Your task to perform on an android device: turn on translation in the chrome app Image 0: 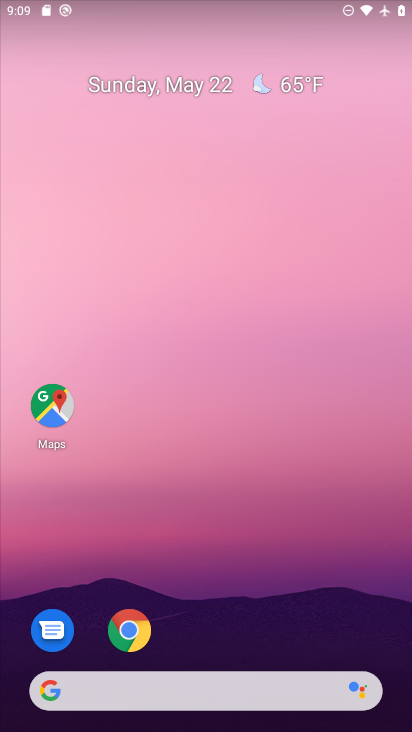
Step 0: press home button
Your task to perform on an android device: turn on translation in the chrome app Image 1: 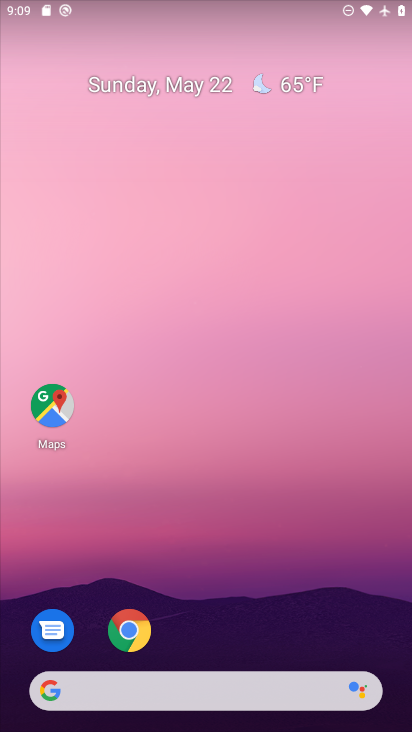
Step 1: click (131, 635)
Your task to perform on an android device: turn on translation in the chrome app Image 2: 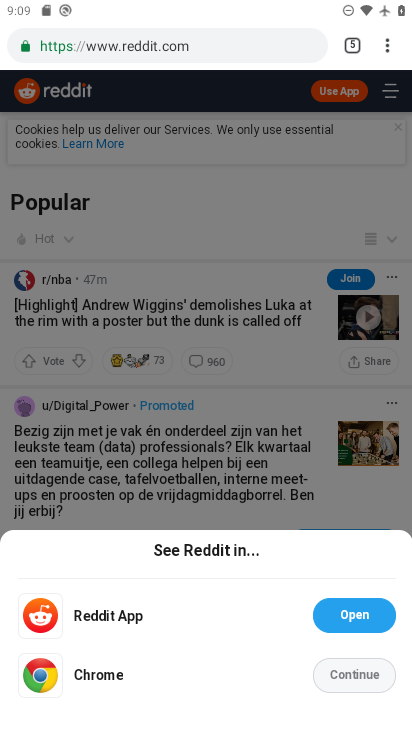
Step 2: drag from (386, 53) to (244, 544)
Your task to perform on an android device: turn on translation in the chrome app Image 3: 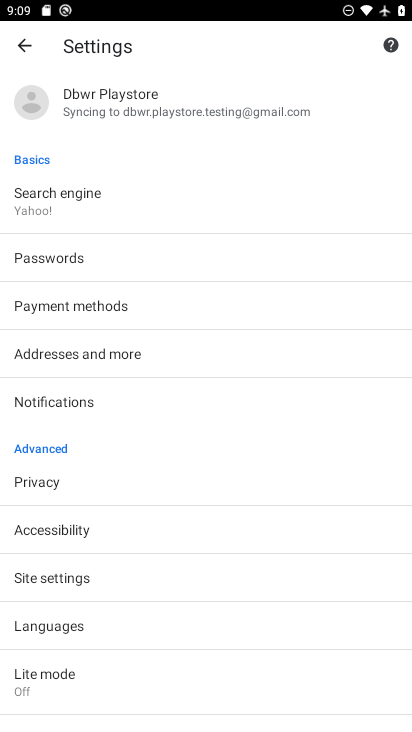
Step 3: click (91, 633)
Your task to perform on an android device: turn on translation in the chrome app Image 4: 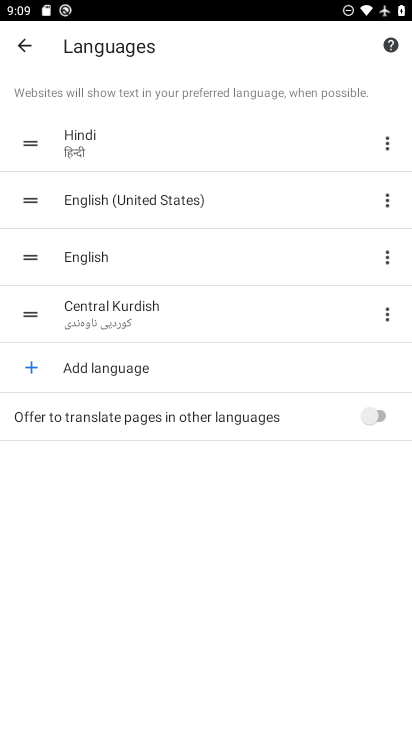
Step 4: click (383, 413)
Your task to perform on an android device: turn on translation in the chrome app Image 5: 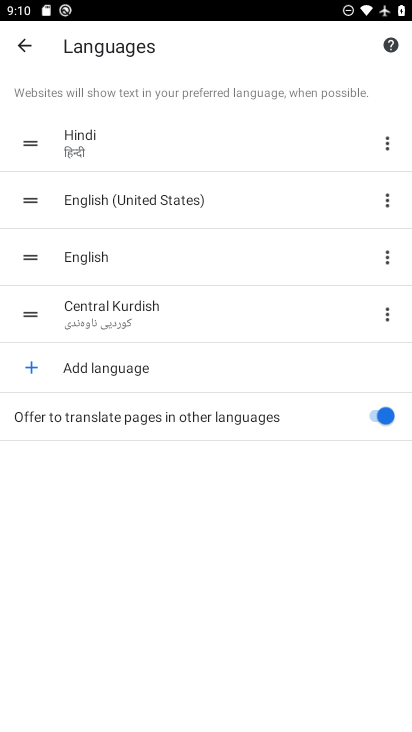
Step 5: task complete